Your task to perform on an android device: star an email in the gmail app Image 0: 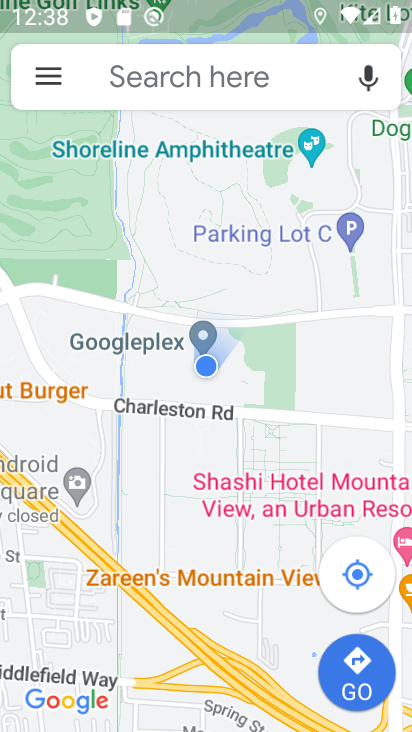
Step 0: click (400, 200)
Your task to perform on an android device: star an email in the gmail app Image 1: 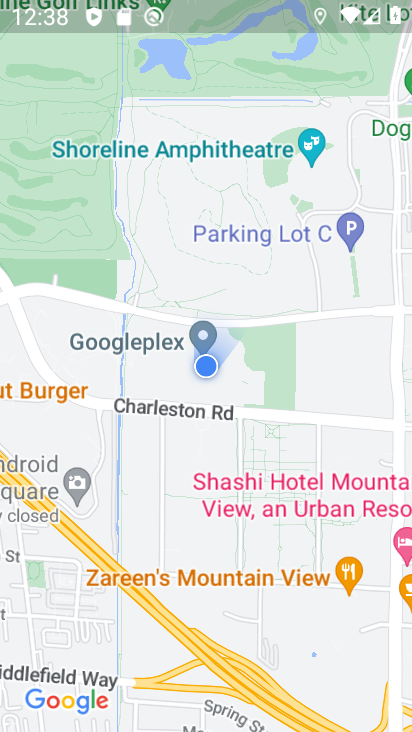
Step 1: press home button
Your task to perform on an android device: star an email in the gmail app Image 2: 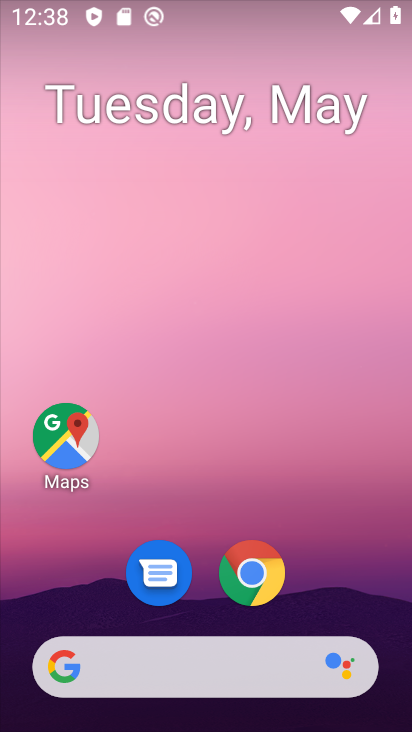
Step 2: drag from (370, 590) to (351, 93)
Your task to perform on an android device: star an email in the gmail app Image 3: 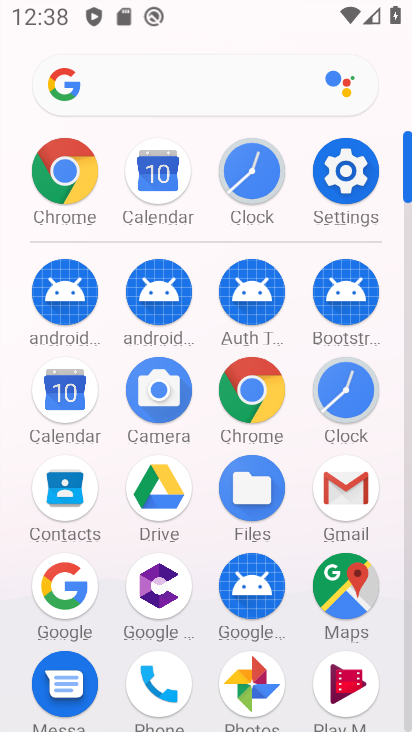
Step 3: click (343, 472)
Your task to perform on an android device: star an email in the gmail app Image 4: 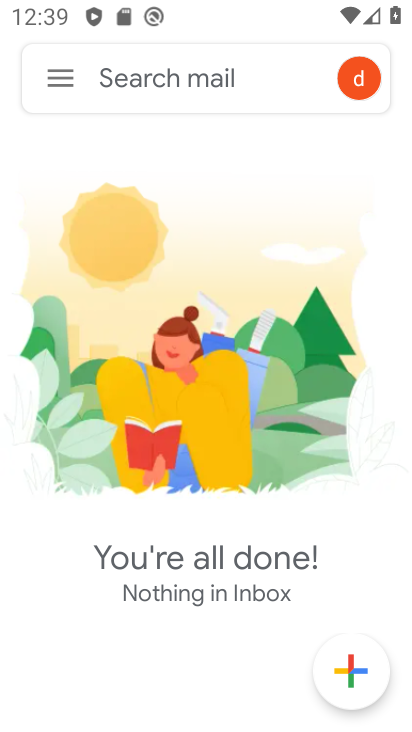
Step 4: task complete